Your task to perform on an android device: turn on the 24-hour format for clock Image 0: 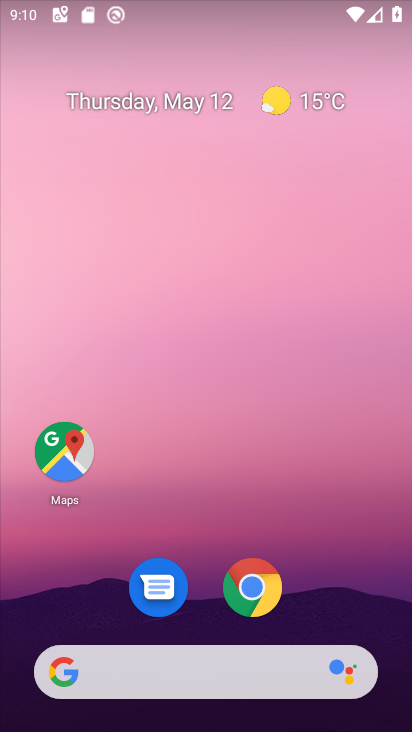
Step 0: drag from (387, 608) to (250, 36)
Your task to perform on an android device: turn on the 24-hour format for clock Image 1: 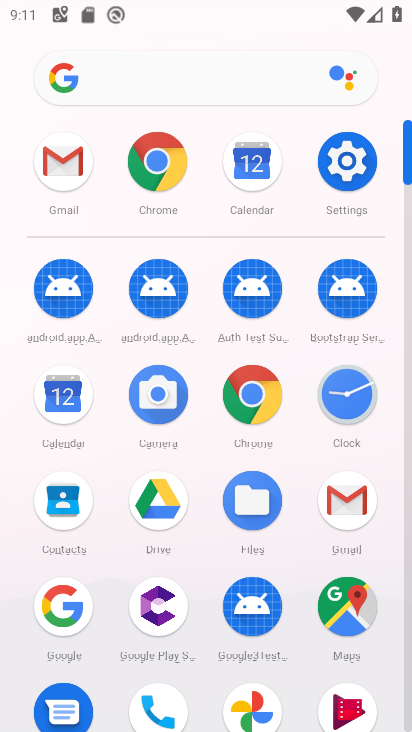
Step 1: click (356, 398)
Your task to perform on an android device: turn on the 24-hour format for clock Image 2: 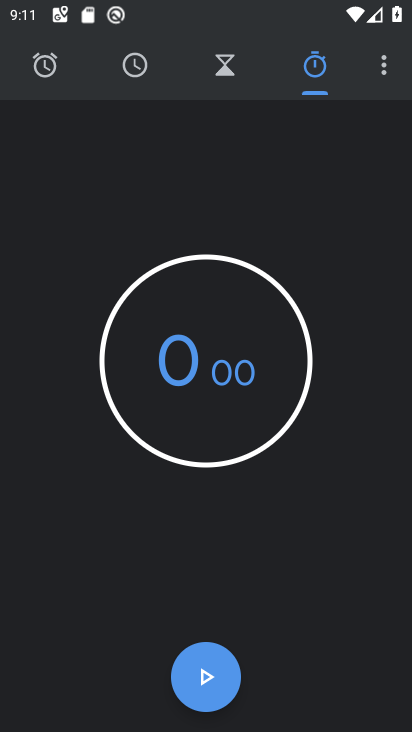
Step 2: click (381, 75)
Your task to perform on an android device: turn on the 24-hour format for clock Image 3: 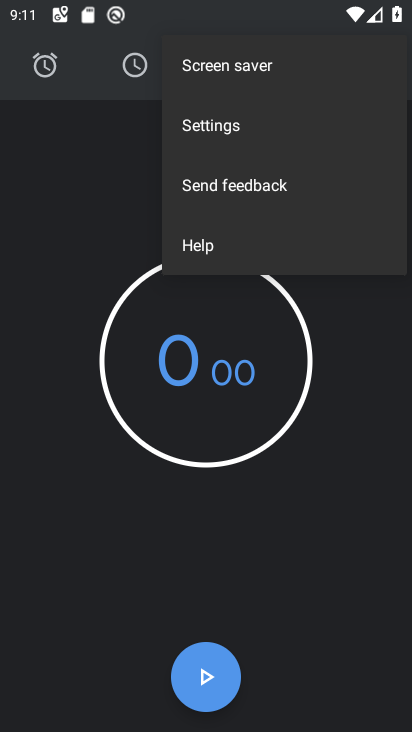
Step 3: click (234, 122)
Your task to perform on an android device: turn on the 24-hour format for clock Image 4: 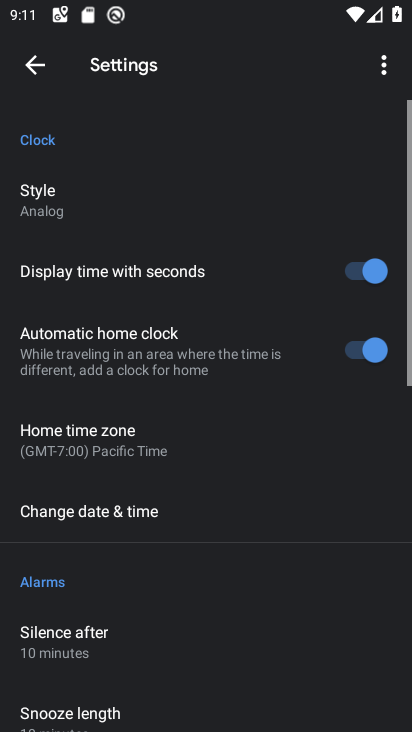
Step 4: click (129, 508)
Your task to perform on an android device: turn on the 24-hour format for clock Image 5: 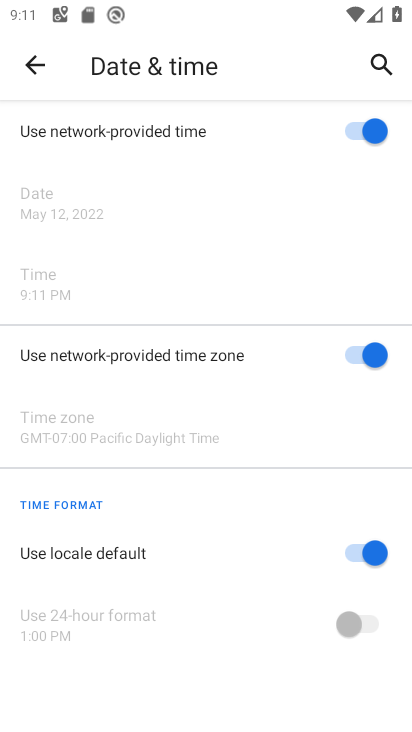
Step 5: task complete